Your task to perform on an android device: Open the calendar and show me this week's events? Image 0: 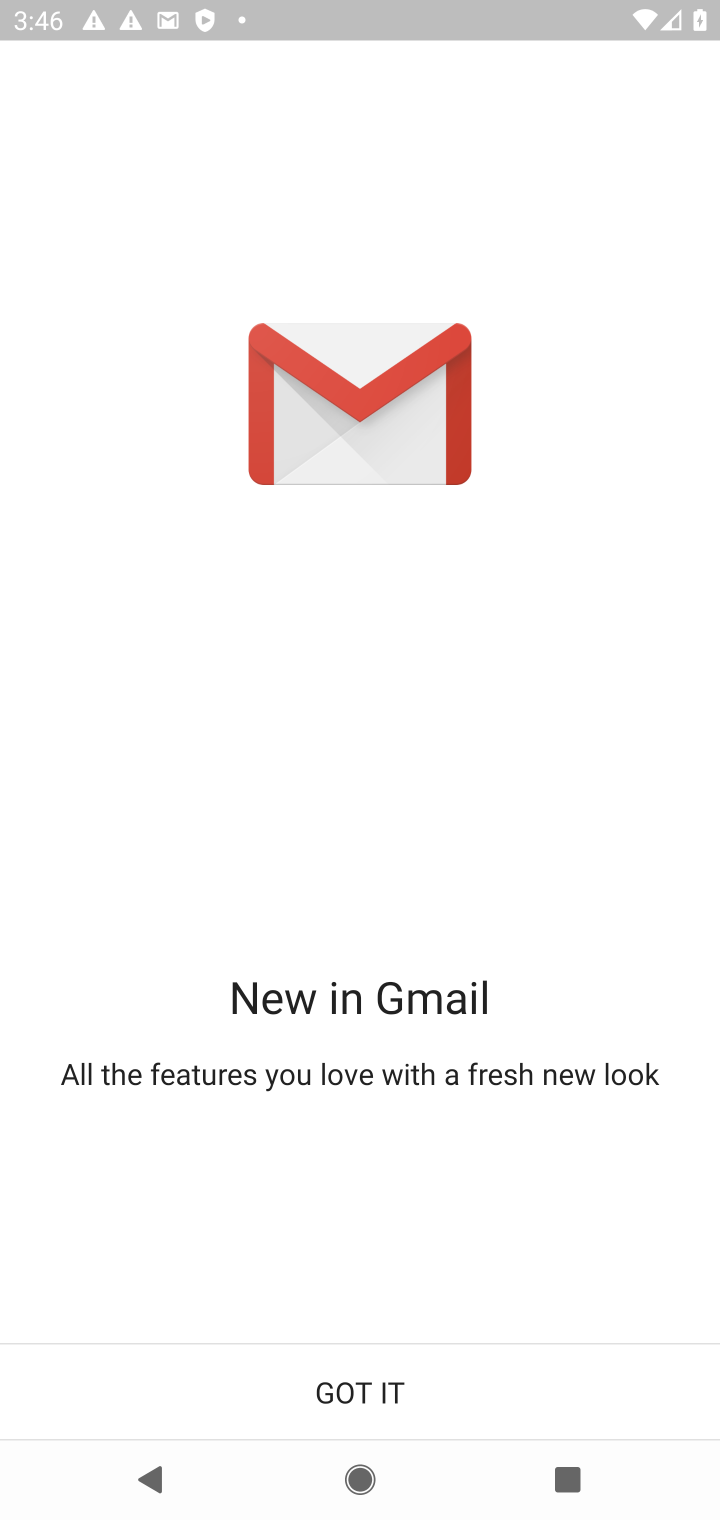
Step 0: press home button
Your task to perform on an android device: Open the calendar and show me this week's events? Image 1: 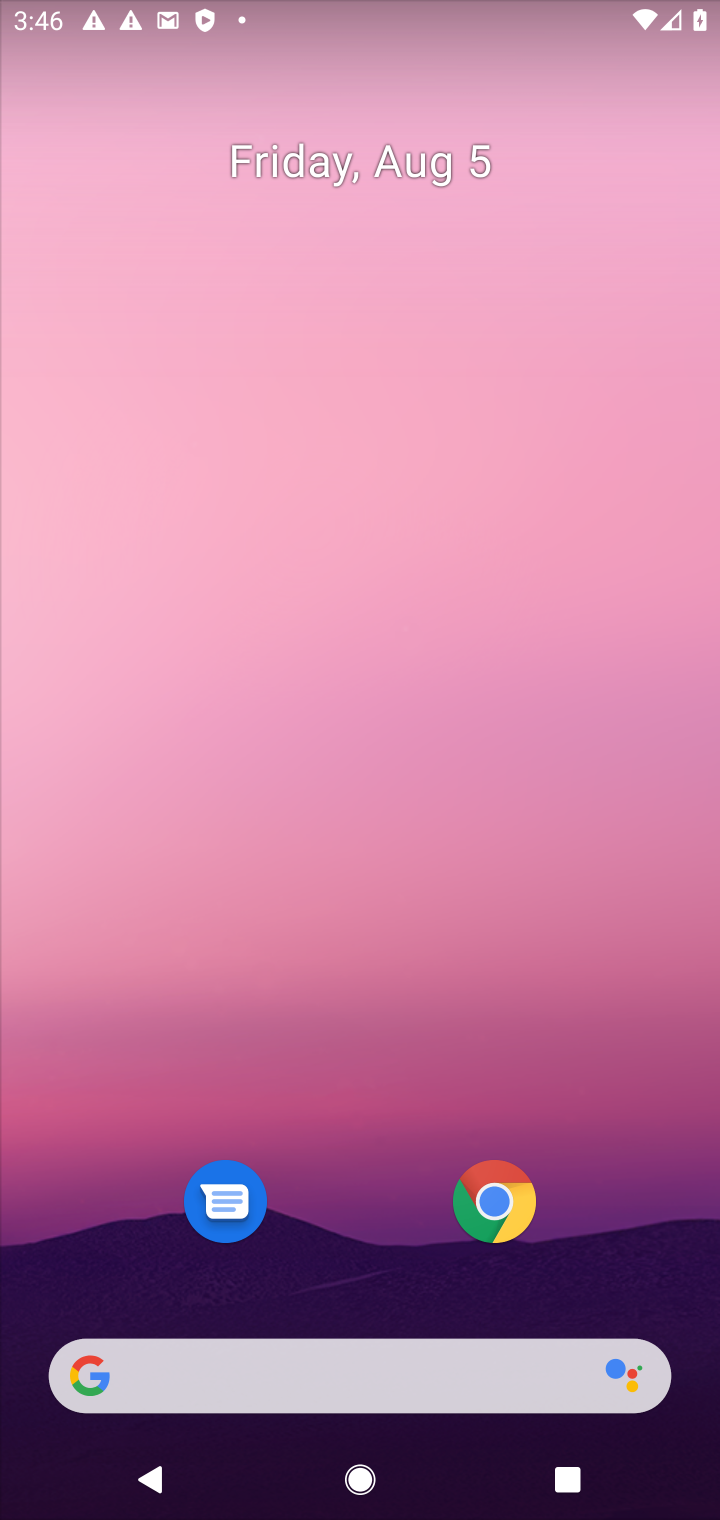
Step 1: drag from (633, 1267) to (433, 105)
Your task to perform on an android device: Open the calendar and show me this week's events? Image 2: 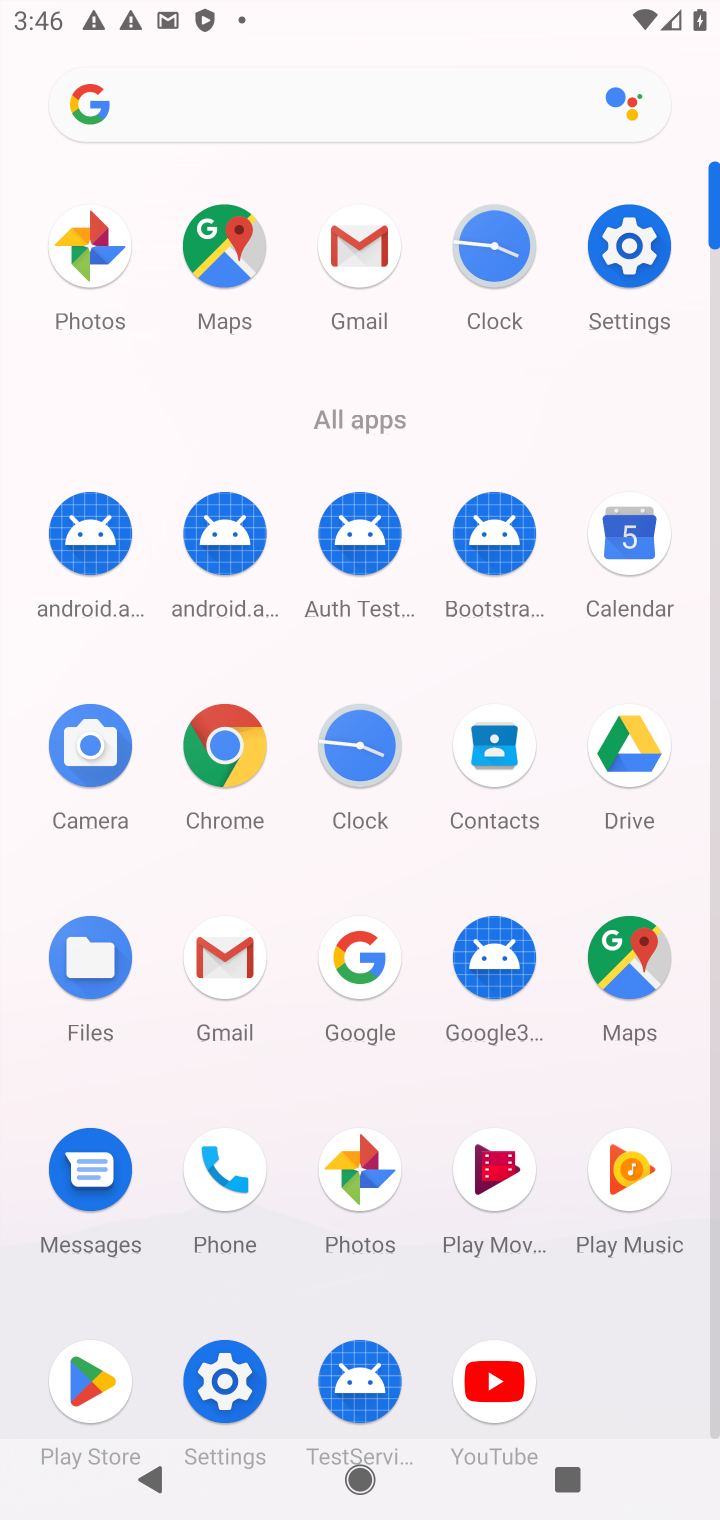
Step 2: click (643, 569)
Your task to perform on an android device: Open the calendar and show me this week's events? Image 3: 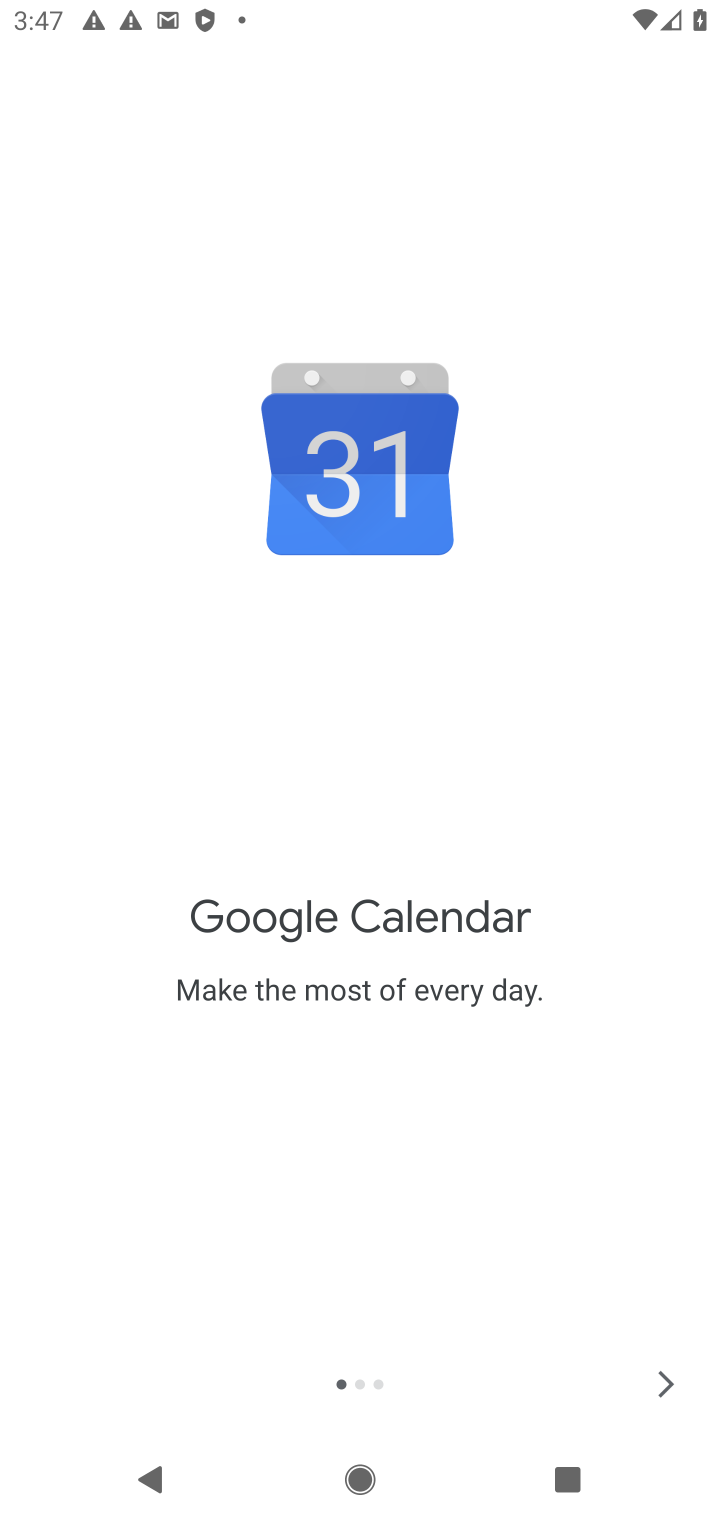
Step 3: click (676, 1400)
Your task to perform on an android device: Open the calendar and show me this week's events? Image 4: 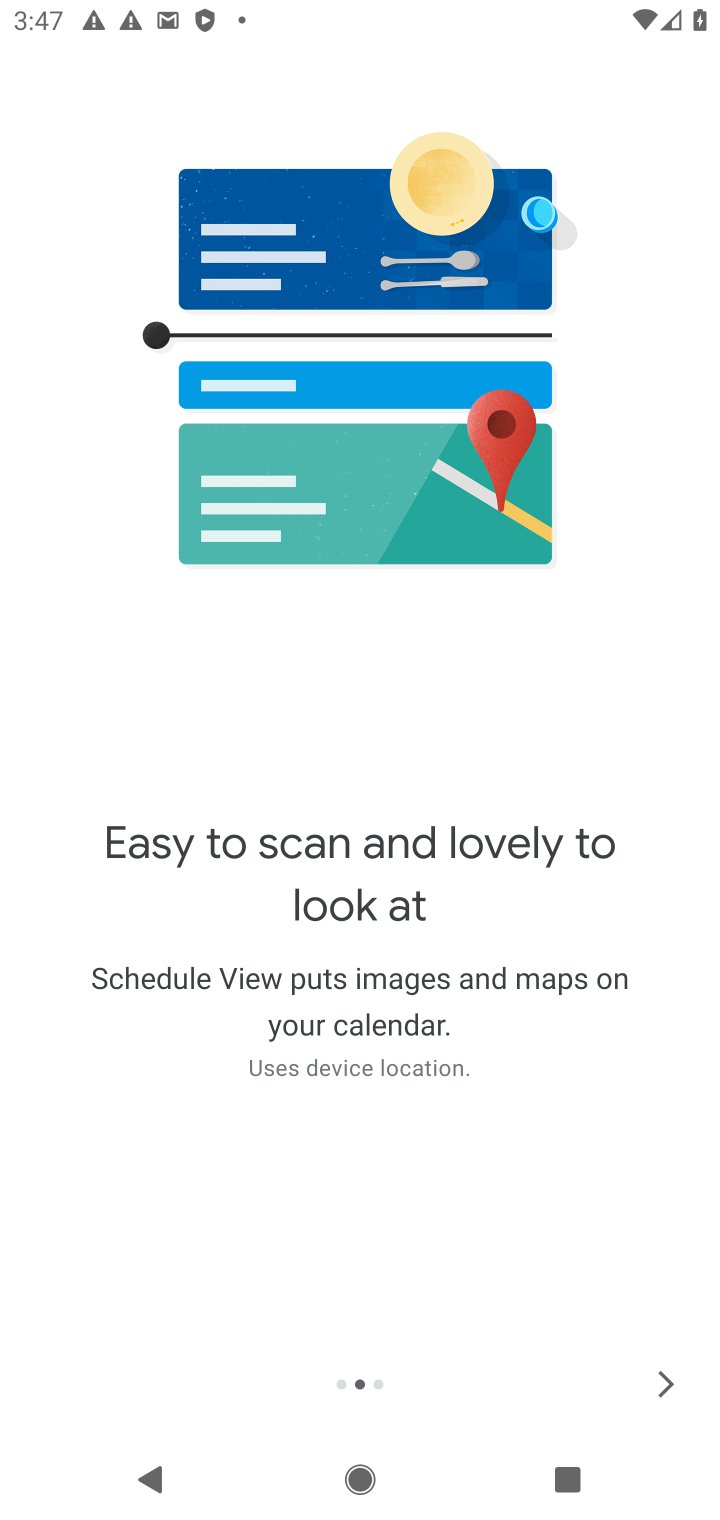
Step 4: click (675, 1400)
Your task to perform on an android device: Open the calendar and show me this week's events? Image 5: 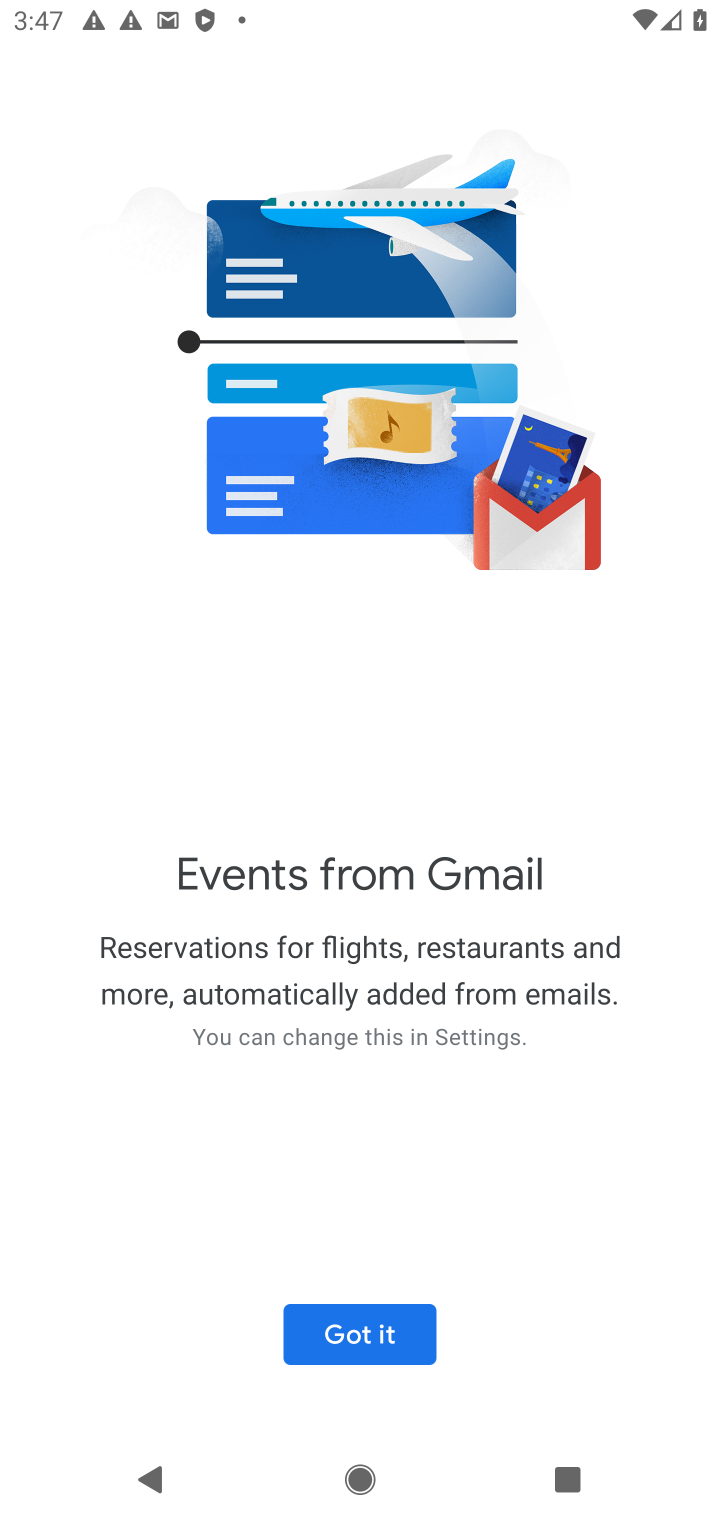
Step 5: click (354, 1333)
Your task to perform on an android device: Open the calendar and show me this week's events? Image 6: 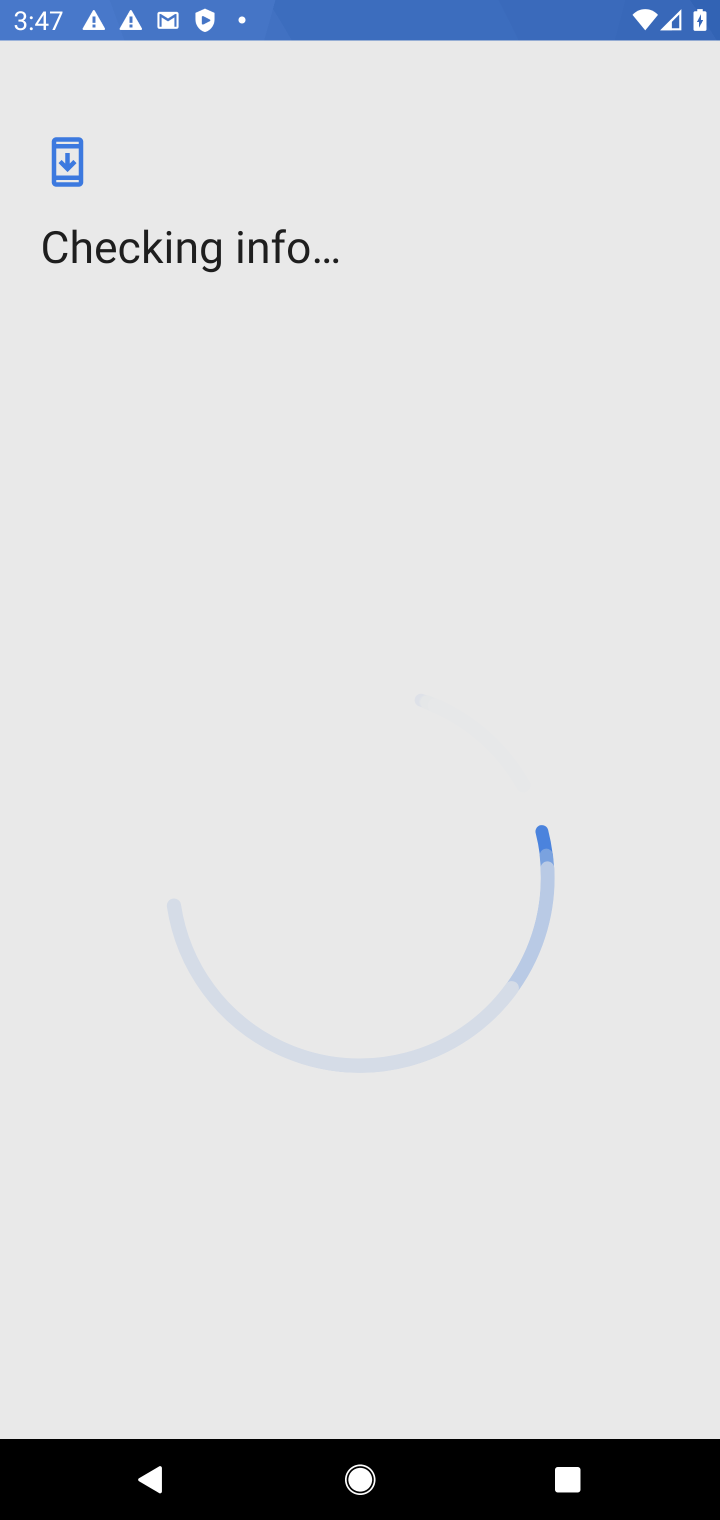
Step 6: press back button
Your task to perform on an android device: Open the calendar and show me this week's events? Image 7: 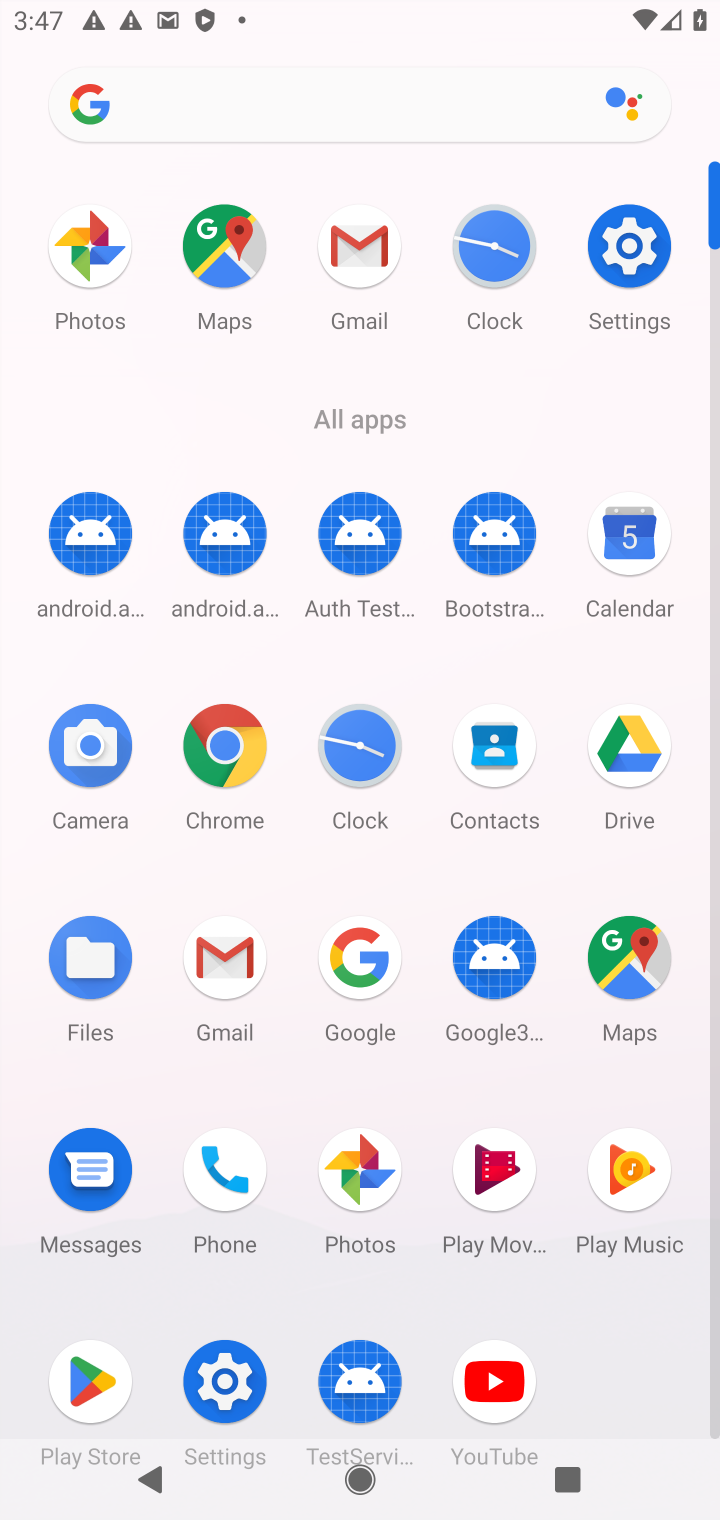
Step 7: click (612, 572)
Your task to perform on an android device: Open the calendar and show me this week's events? Image 8: 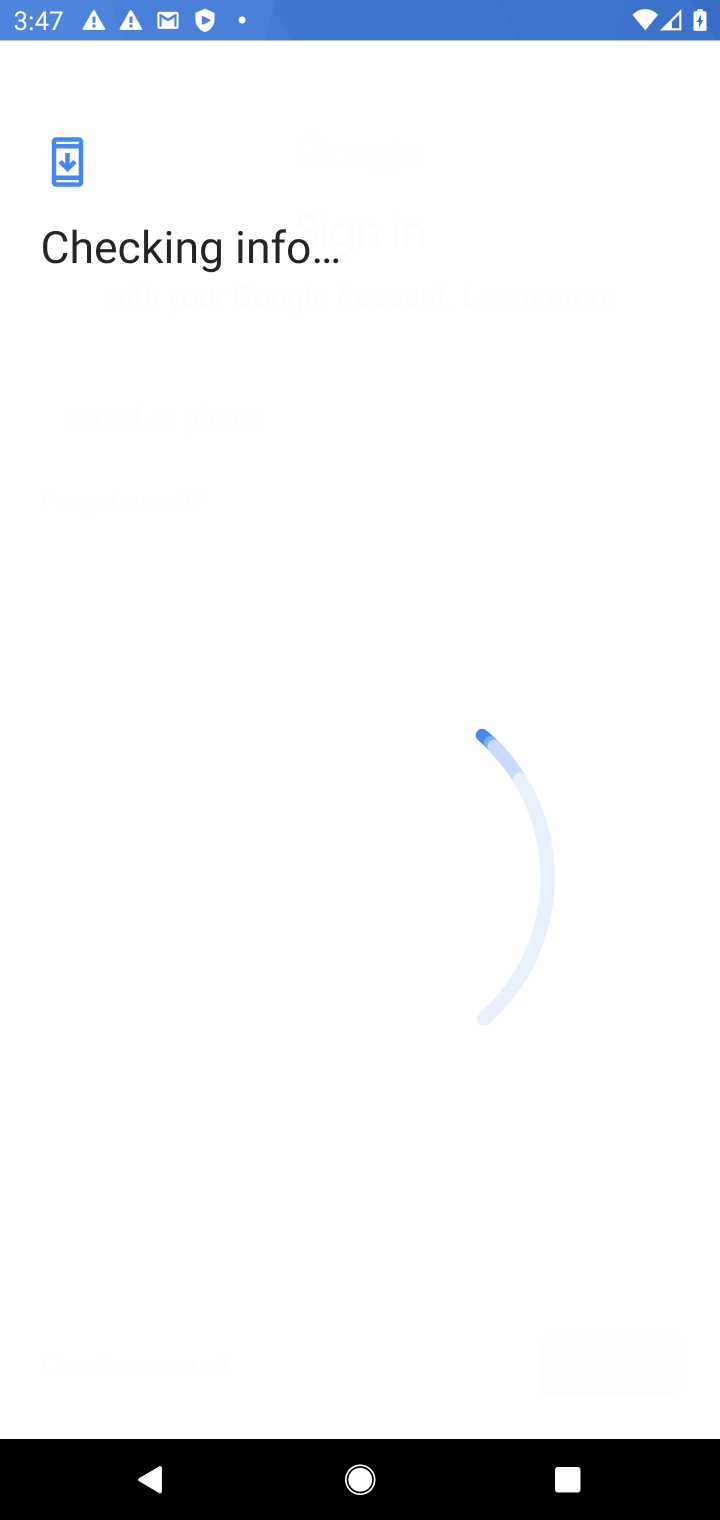
Step 8: task complete